Your task to perform on an android device: Go to Yahoo.com Image 0: 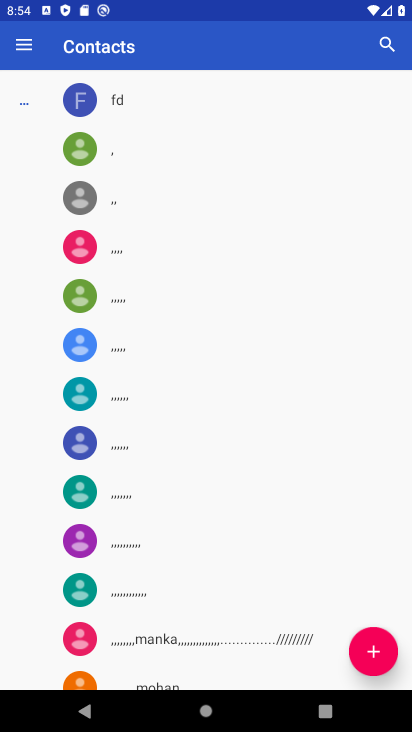
Step 0: press home button
Your task to perform on an android device: Go to Yahoo.com Image 1: 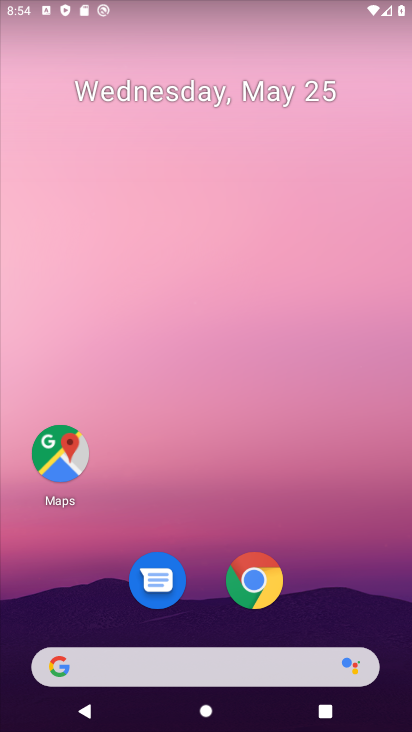
Step 1: click (271, 580)
Your task to perform on an android device: Go to Yahoo.com Image 2: 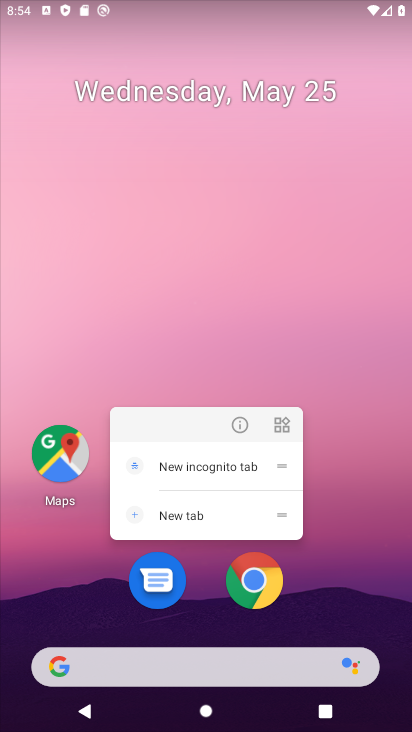
Step 2: click (247, 572)
Your task to perform on an android device: Go to Yahoo.com Image 3: 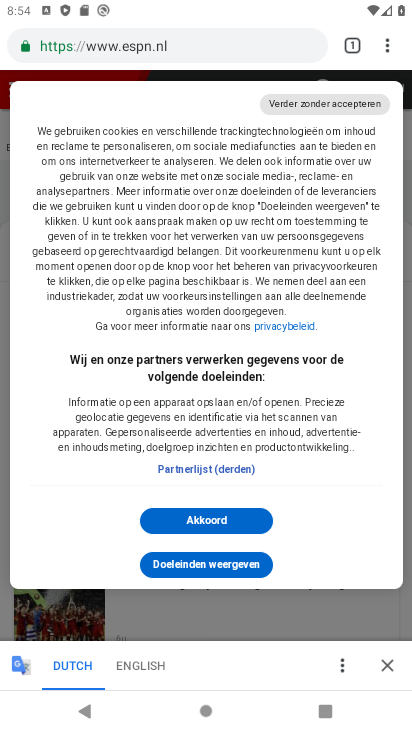
Step 3: click (348, 45)
Your task to perform on an android device: Go to Yahoo.com Image 4: 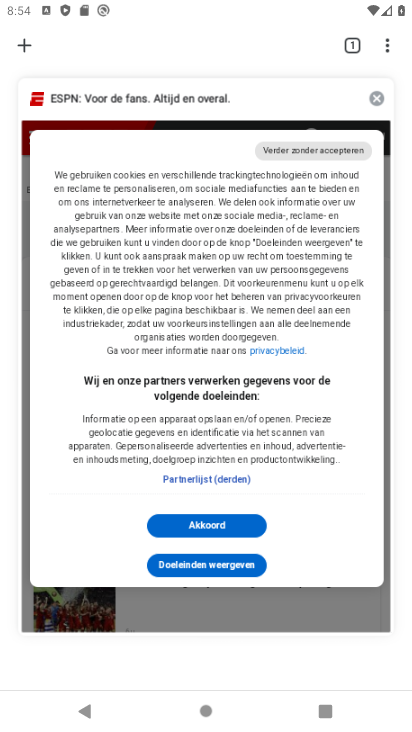
Step 4: click (22, 51)
Your task to perform on an android device: Go to Yahoo.com Image 5: 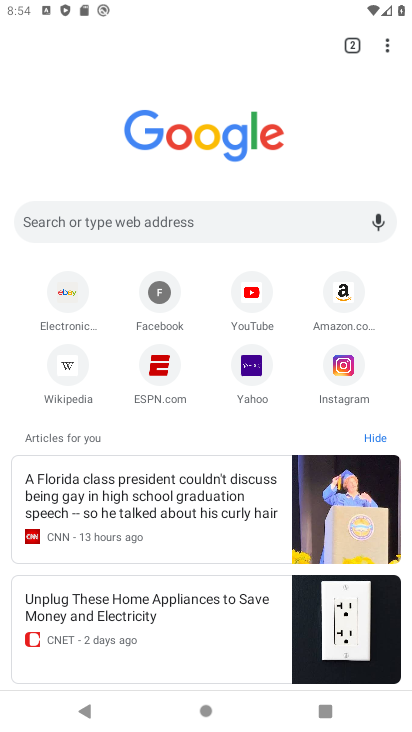
Step 5: click (252, 372)
Your task to perform on an android device: Go to Yahoo.com Image 6: 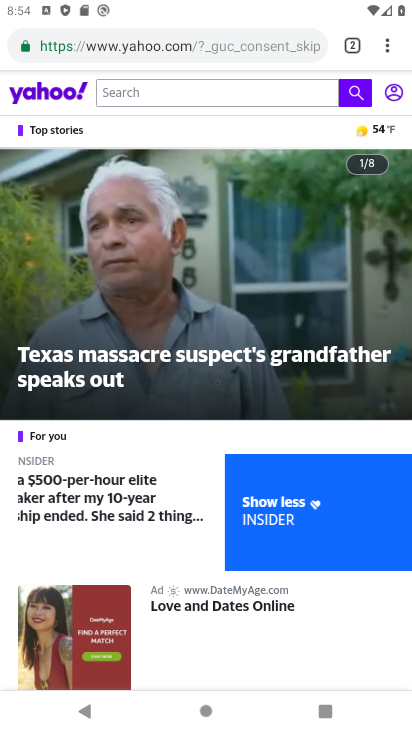
Step 6: task complete